Your task to perform on an android device: turn off smart reply in the gmail app Image 0: 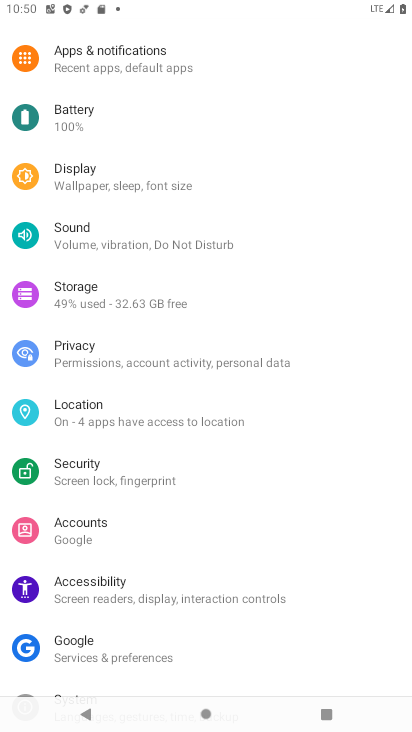
Step 0: press home button
Your task to perform on an android device: turn off smart reply in the gmail app Image 1: 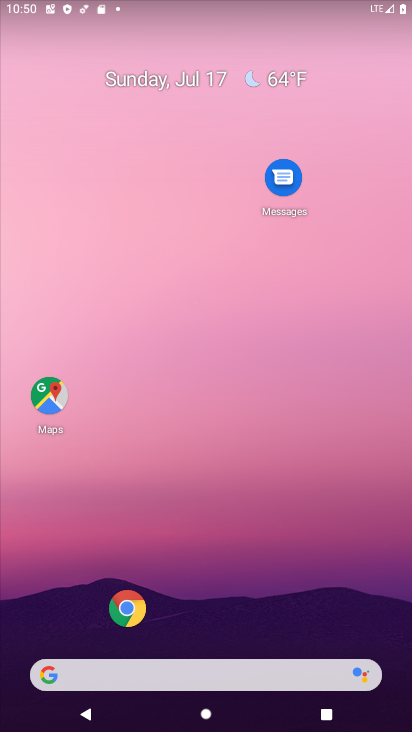
Step 1: drag from (128, 470) to (234, 200)
Your task to perform on an android device: turn off smart reply in the gmail app Image 2: 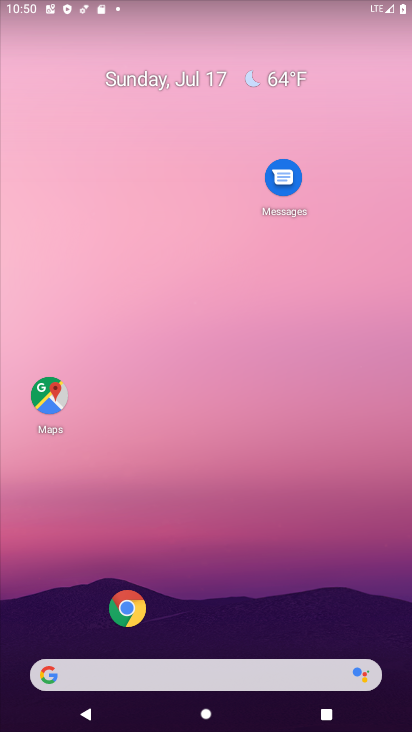
Step 2: drag from (18, 699) to (206, 0)
Your task to perform on an android device: turn off smart reply in the gmail app Image 3: 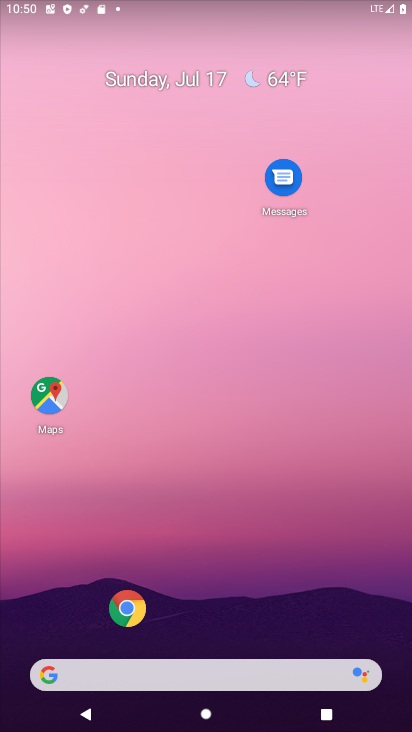
Step 3: drag from (36, 699) to (162, 225)
Your task to perform on an android device: turn off smart reply in the gmail app Image 4: 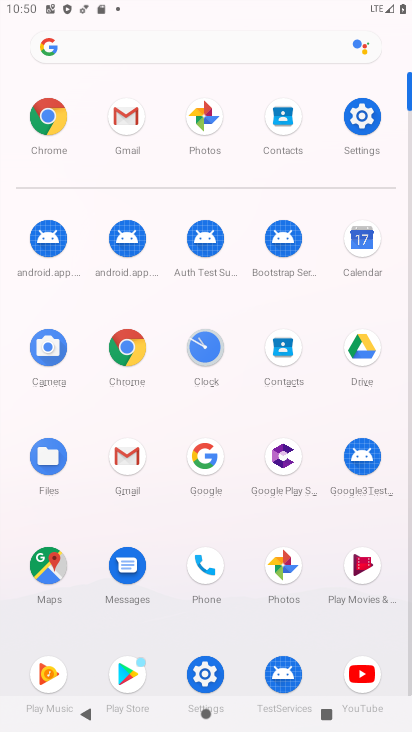
Step 4: click (124, 460)
Your task to perform on an android device: turn off smart reply in the gmail app Image 5: 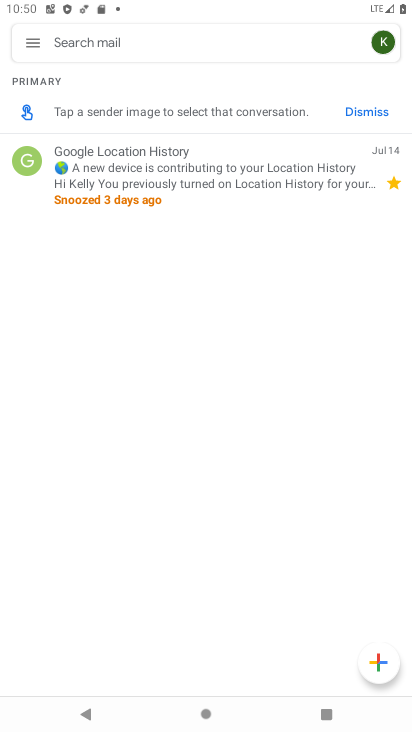
Step 5: click (32, 47)
Your task to perform on an android device: turn off smart reply in the gmail app Image 6: 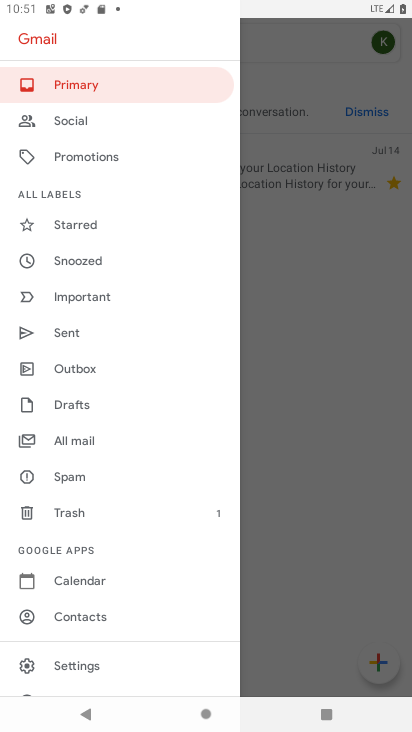
Step 6: click (94, 643)
Your task to perform on an android device: turn off smart reply in the gmail app Image 7: 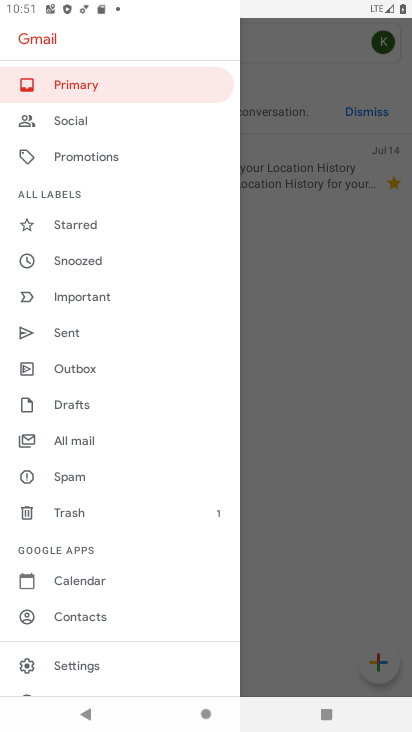
Step 7: click (86, 662)
Your task to perform on an android device: turn off smart reply in the gmail app Image 8: 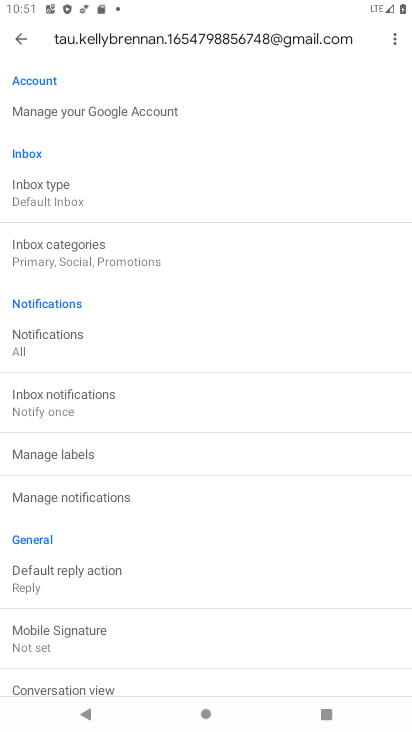
Step 8: click (317, 300)
Your task to perform on an android device: turn off smart reply in the gmail app Image 9: 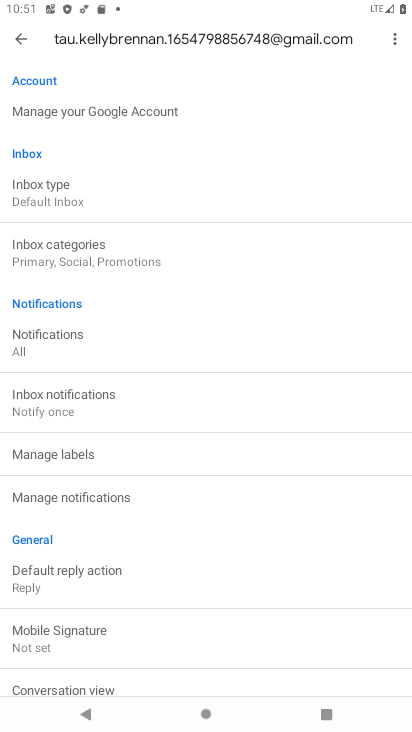
Step 9: drag from (319, 298) to (346, 146)
Your task to perform on an android device: turn off smart reply in the gmail app Image 10: 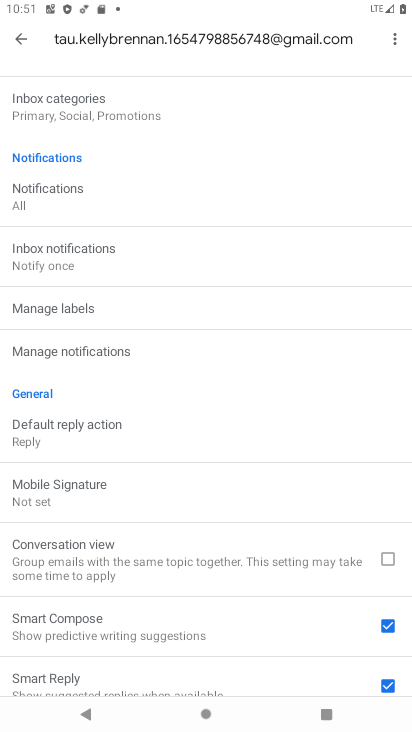
Step 10: drag from (255, 595) to (322, 241)
Your task to perform on an android device: turn off smart reply in the gmail app Image 11: 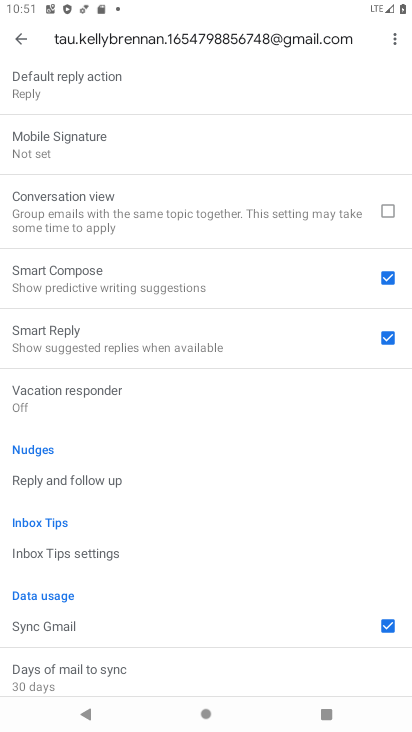
Step 11: click (383, 339)
Your task to perform on an android device: turn off smart reply in the gmail app Image 12: 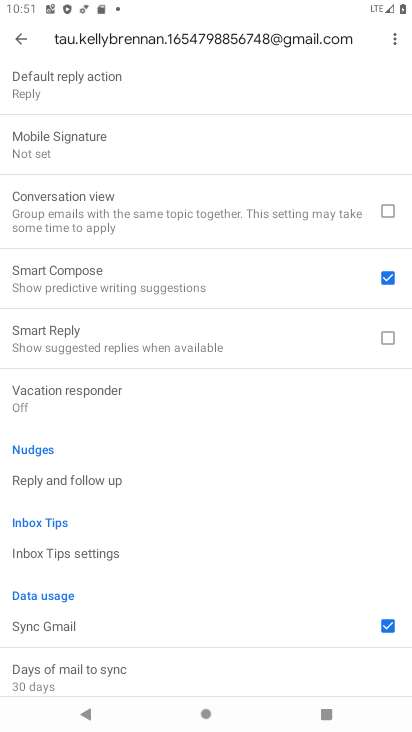
Step 12: task complete